Your task to perform on an android device: turn on improve location accuracy Image 0: 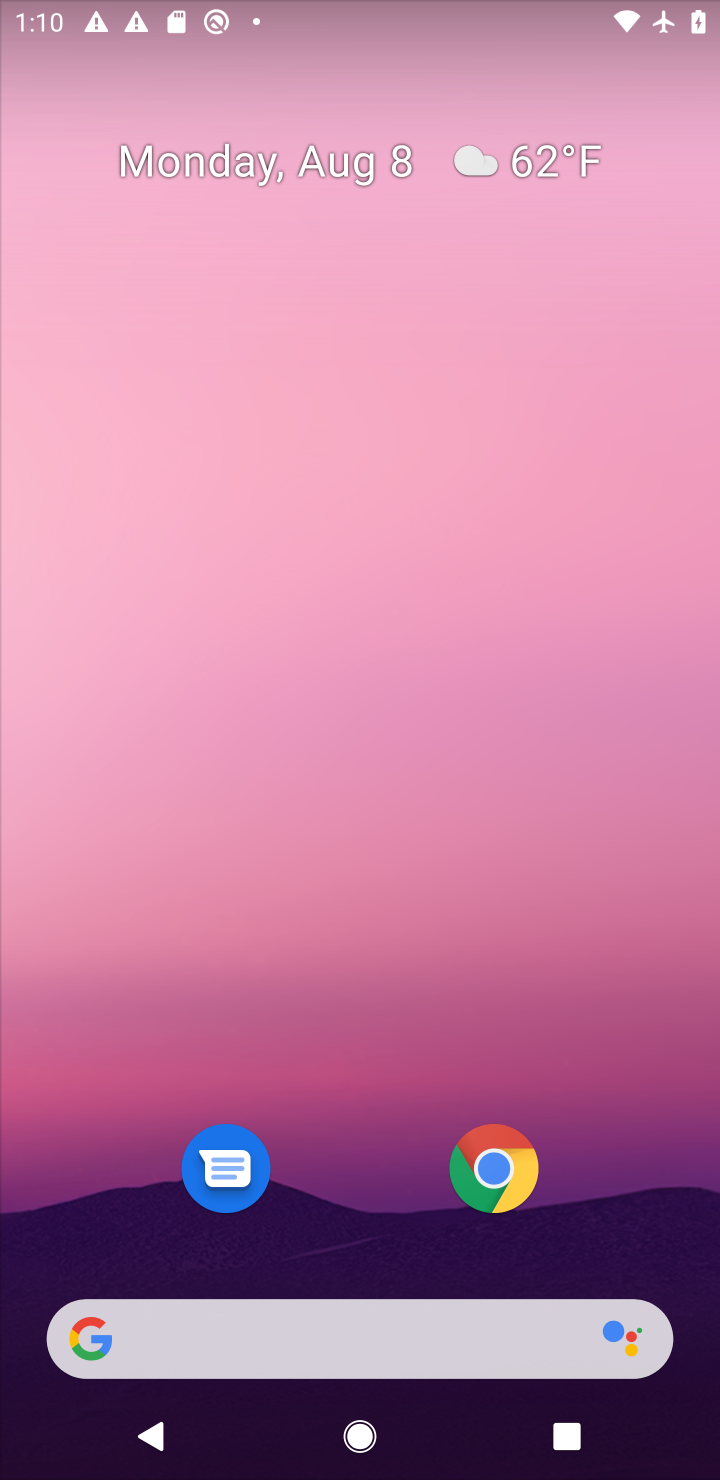
Step 0: drag from (336, 1231) to (328, 688)
Your task to perform on an android device: turn on improve location accuracy Image 1: 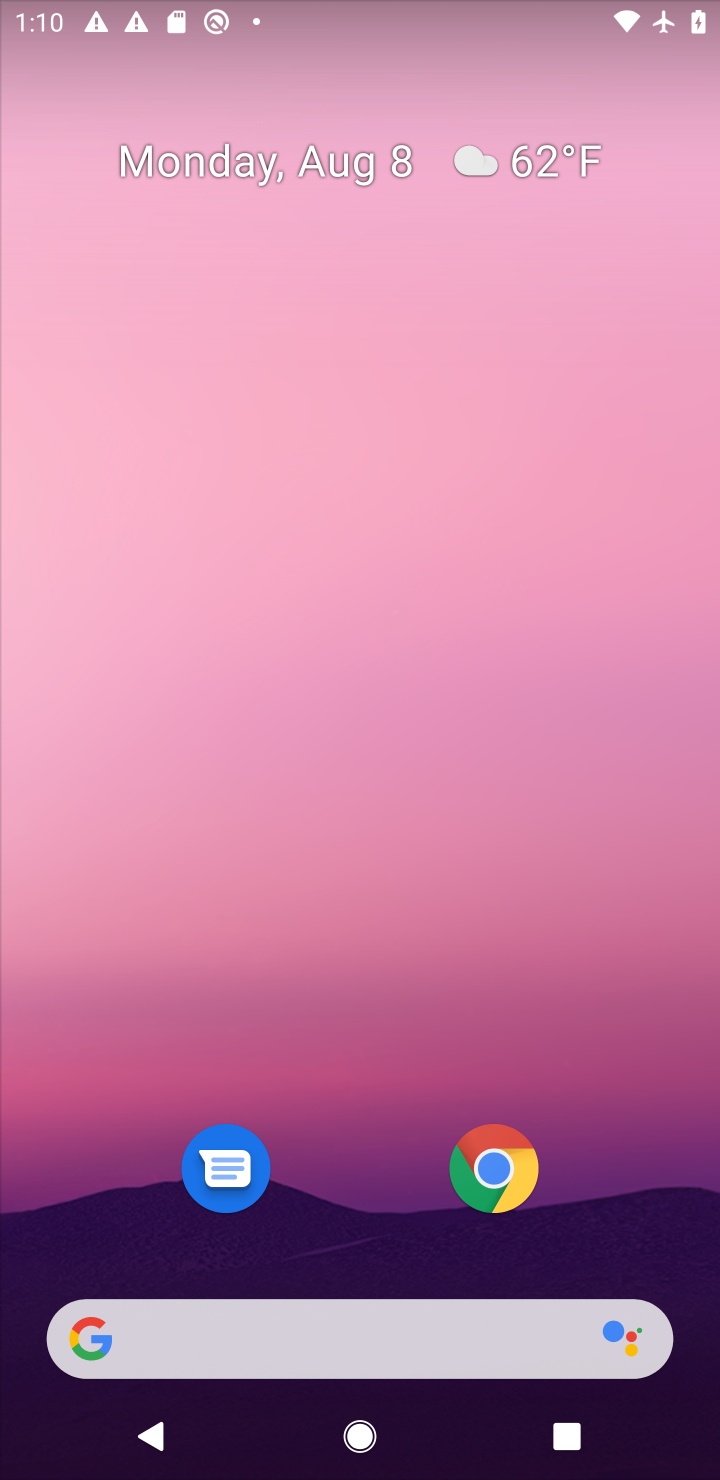
Step 1: drag from (307, 746) to (318, 53)
Your task to perform on an android device: turn on improve location accuracy Image 2: 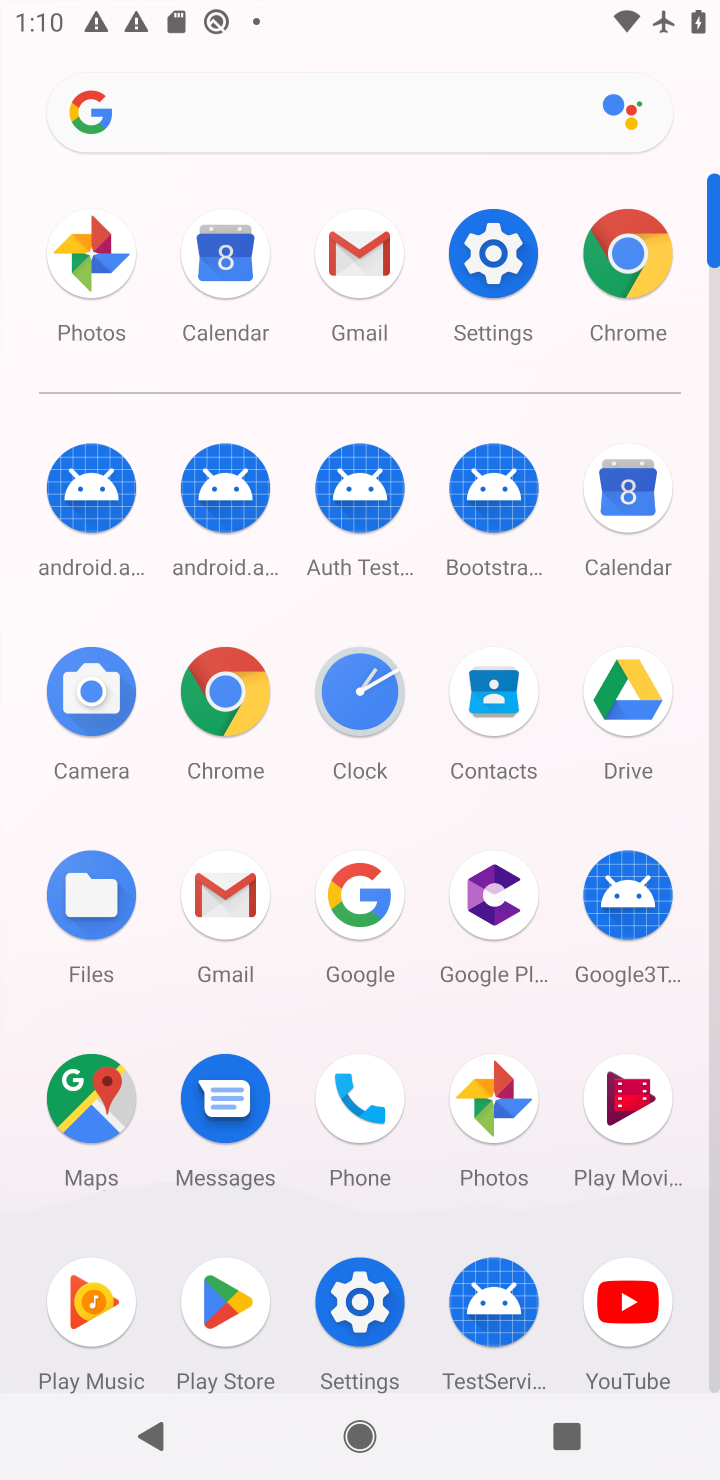
Step 2: click (499, 288)
Your task to perform on an android device: turn on improve location accuracy Image 3: 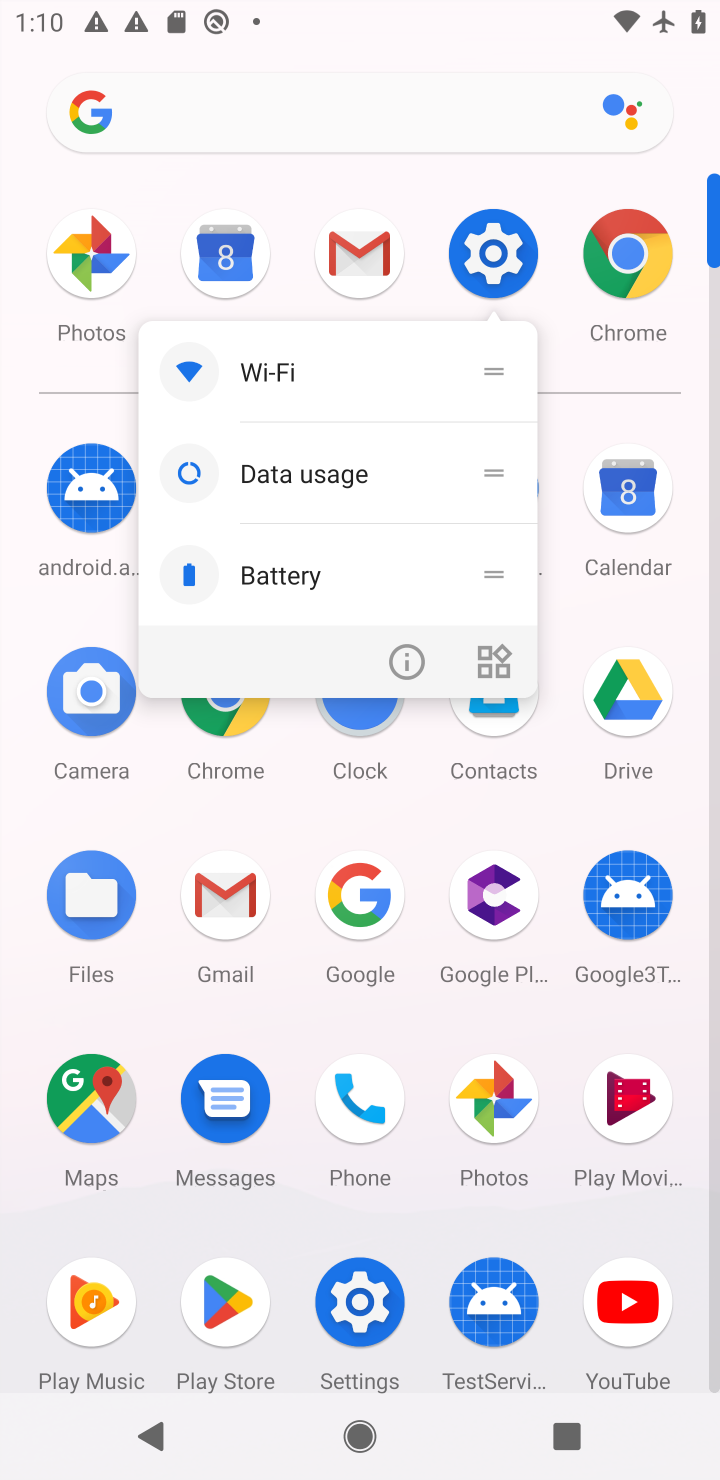
Step 3: click (344, 1273)
Your task to perform on an android device: turn on improve location accuracy Image 4: 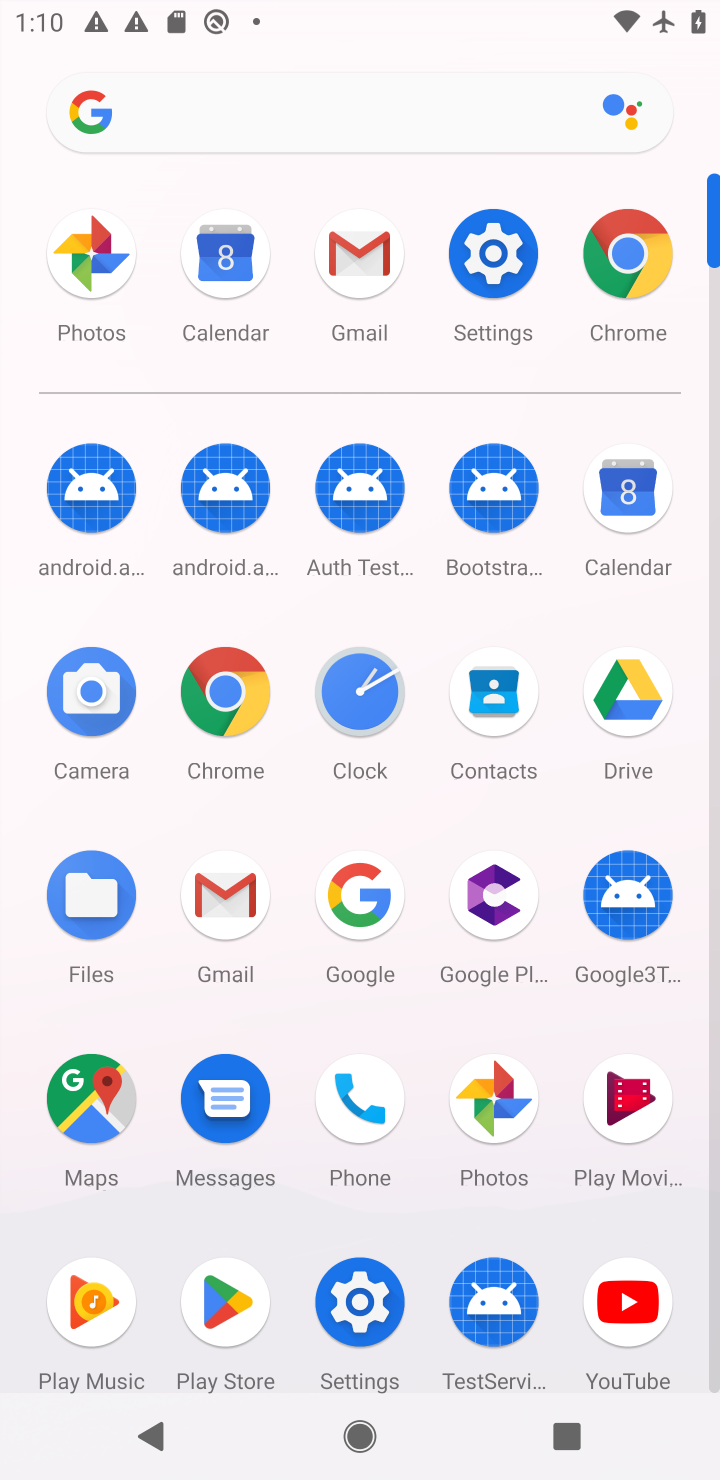
Step 4: click (343, 1327)
Your task to perform on an android device: turn on improve location accuracy Image 5: 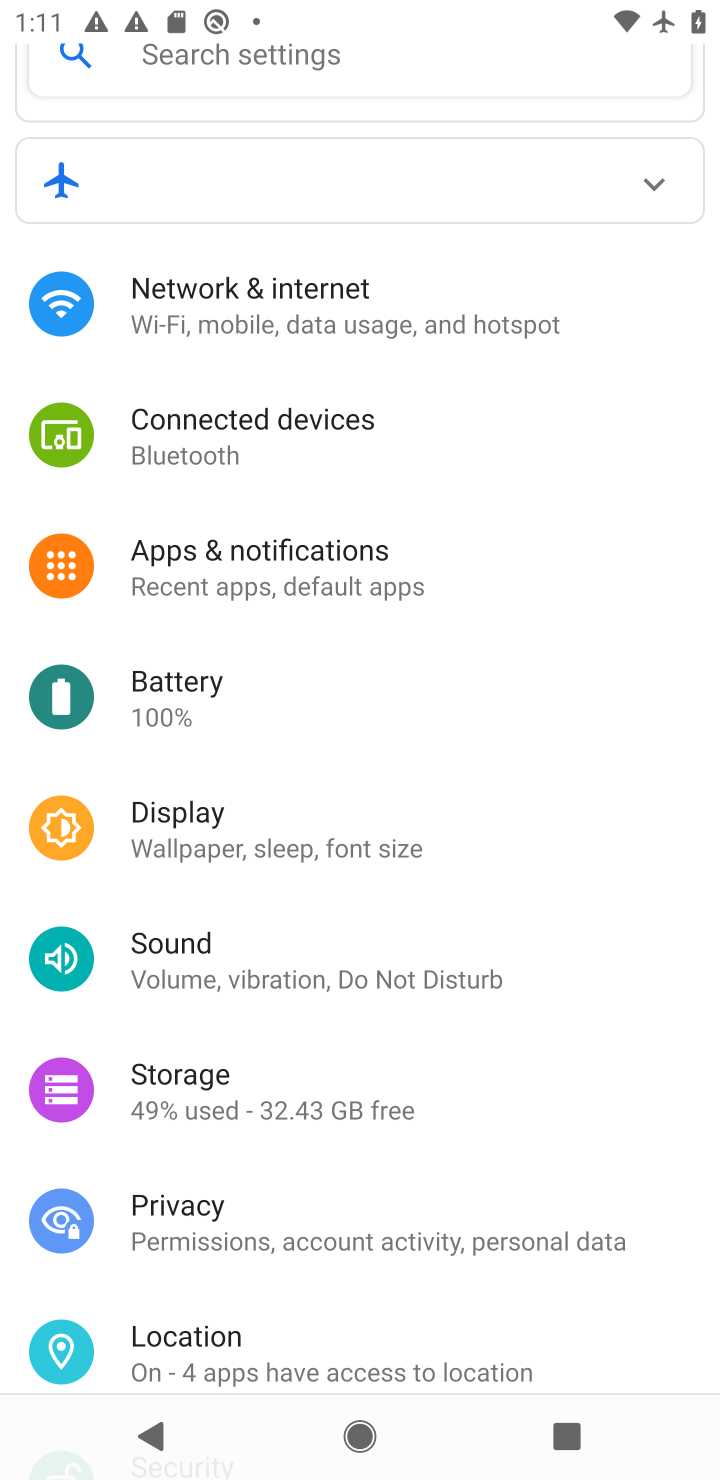
Step 5: click (502, 606)
Your task to perform on an android device: turn on improve location accuracy Image 6: 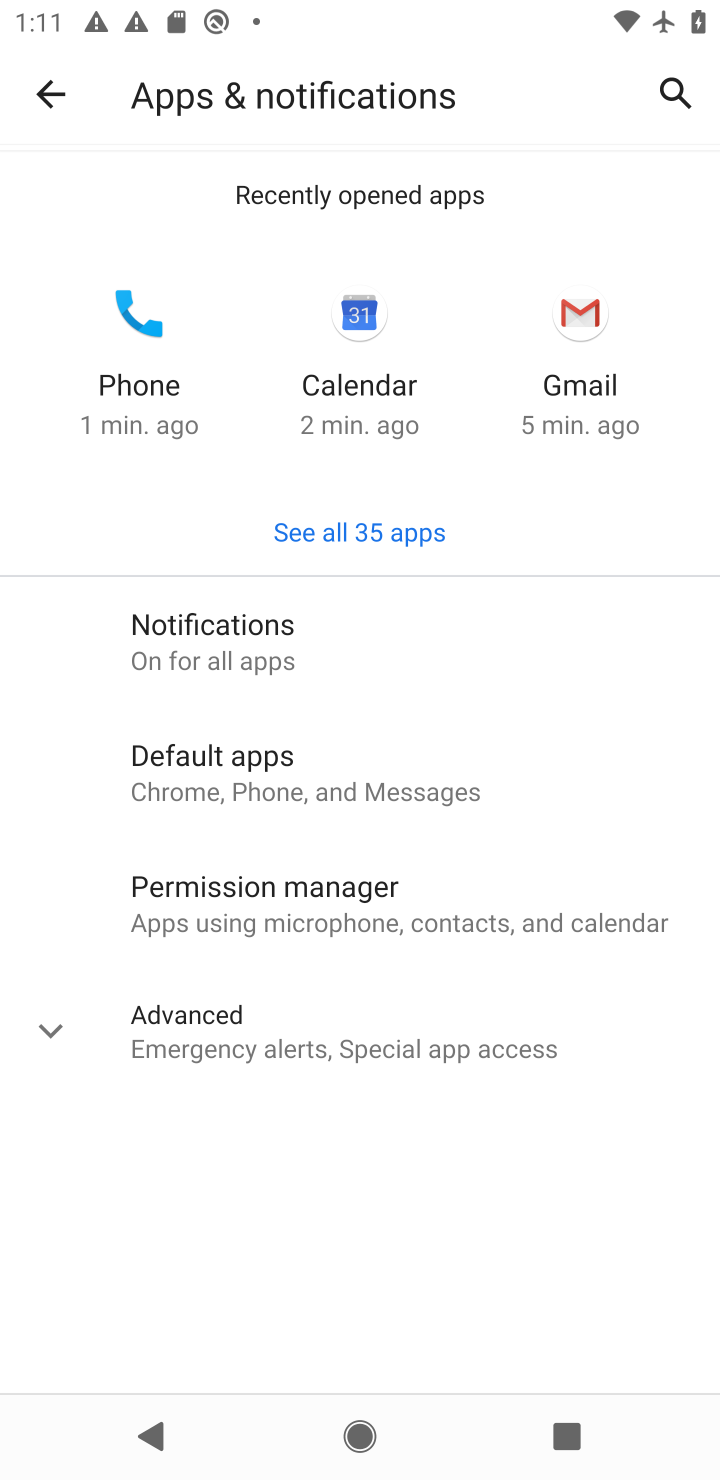
Step 6: task complete